Your task to perform on an android device: check google app version Image 0: 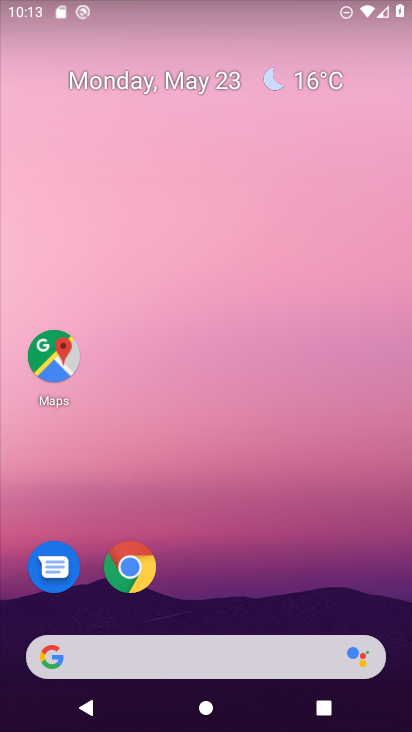
Step 0: drag from (153, 587) to (234, 152)
Your task to perform on an android device: check google app version Image 1: 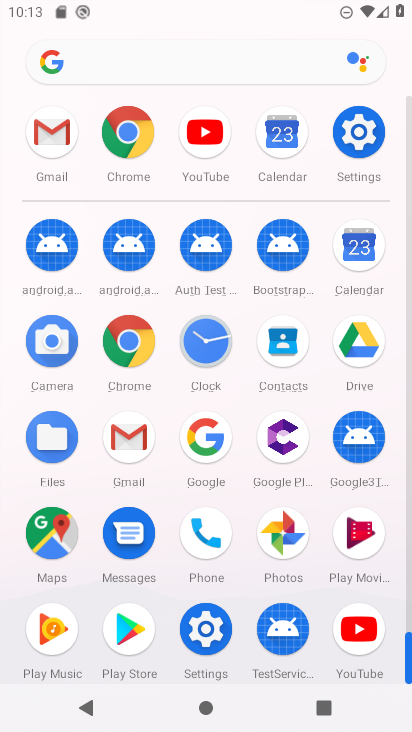
Step 1: drag from (249, 639) to (251, 213)
Your task to perform on an android device: check google app version Image 2: 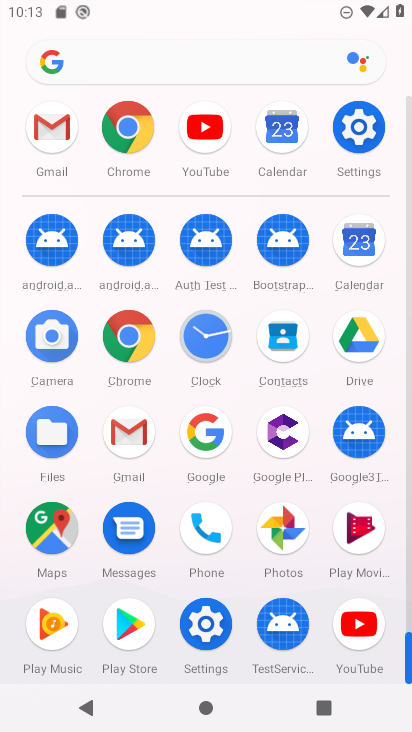
Step 2: drag from (234, 623) to (257, 168)
Your task to perform on an android device: check google app version Image 3: 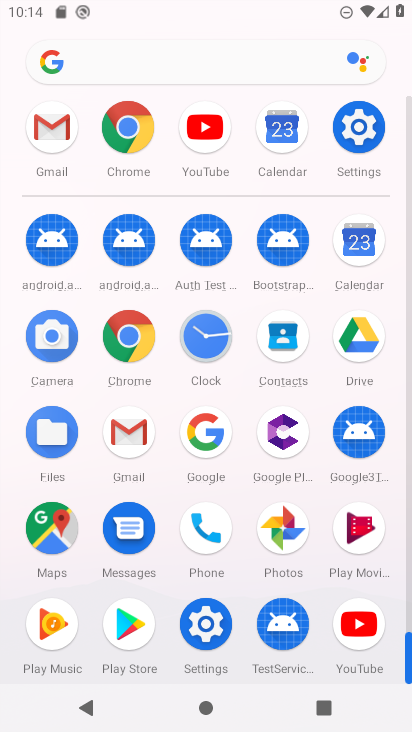
Step 3: click (194, 615)
Your task to perform on an android device: check google app version Image 4: 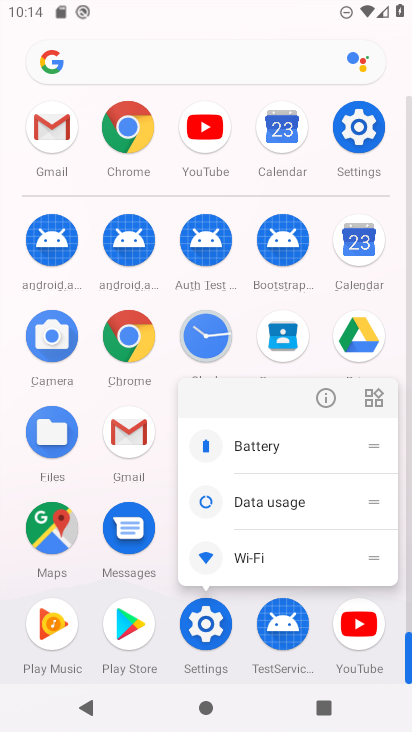
Step 4: click (324, 400)
Your task to perform on an android device: check google app version Image 5: 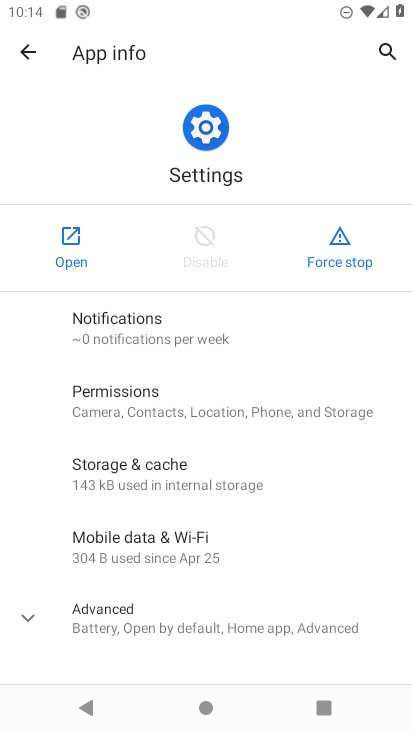
Step 5: click (72, 229)
Your task to perform on an android device: check google app version Image 6: 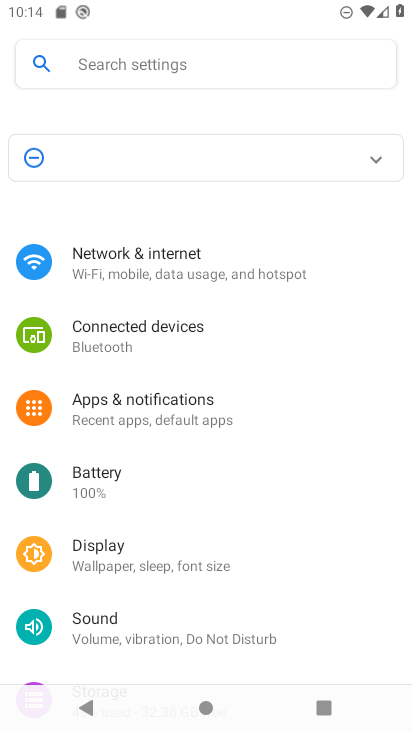
Step 6: drag from (187, 538) to (287, 73)
Your task to perform on an android device: check google app version Image 7: 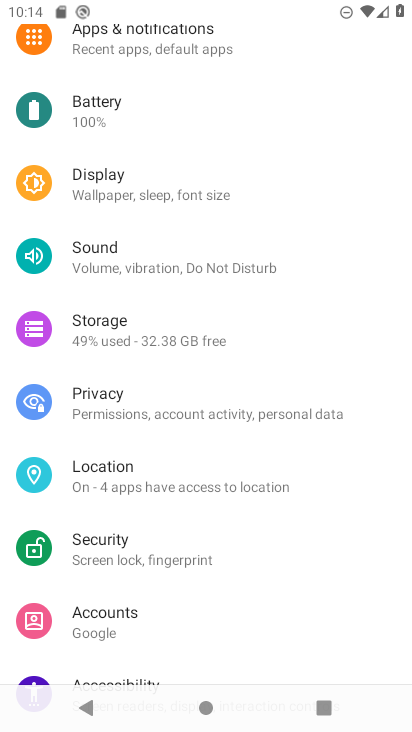
Step 7: drag from (158, 640) to (245, 182)
Your task to perform on an android device: check google app version Image 8: 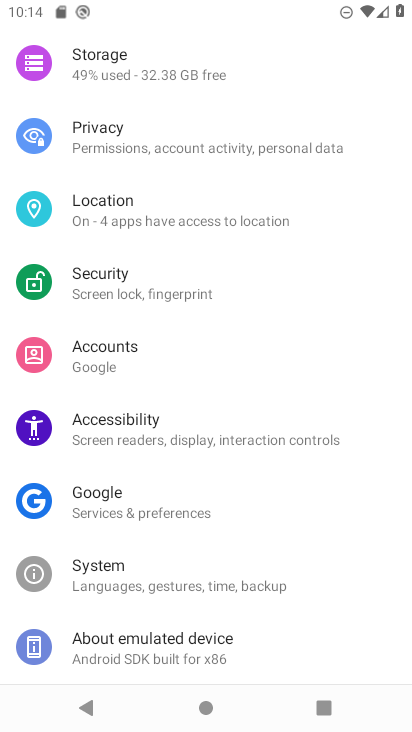
Step 8: drag from (200, 585) to (270, 269)
Your task to perform on an android device: check google app version Image 9: 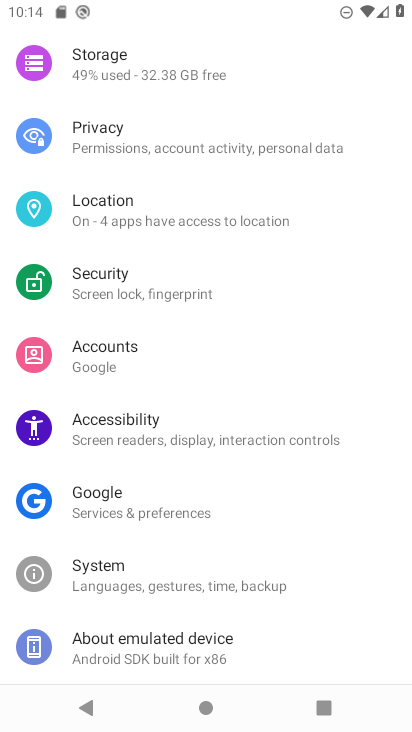
Step 9: click (180, 643)
Your task to perform on an android device: check google app version Image 10: 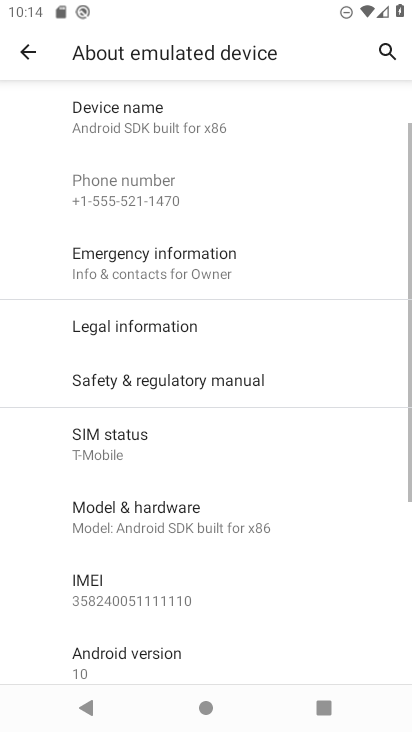
Step 10: drag from (193, 514) to (242, 297)
Your task to perform on an android device: check google app version Image 11: 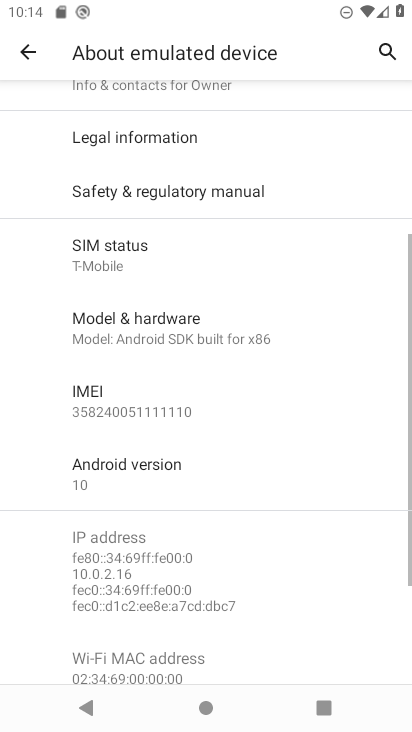
Step 11: drag from (245, 267) to (250, 691)
Your task to perform on an android device: check google app version Image 12: 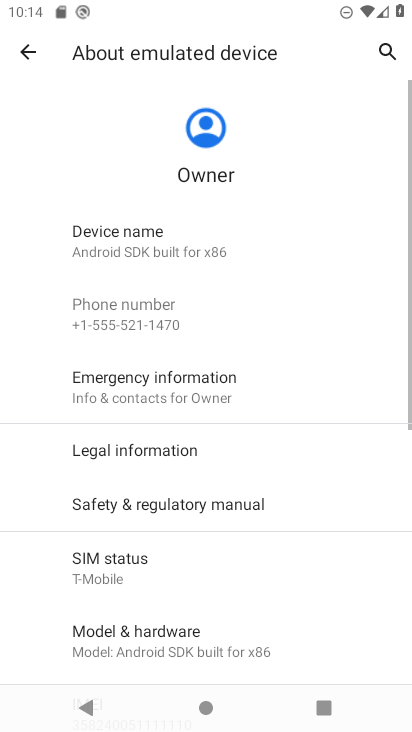
Step 12: drag from (241, 655) to (277, 266)
Your task to perform on an android device: check google app version Image 13: 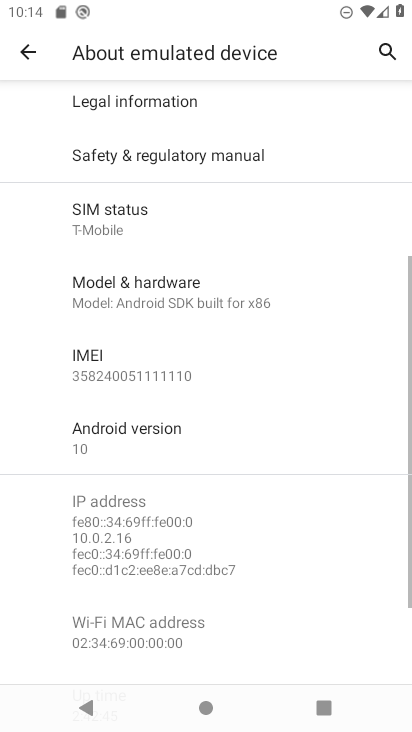
Step 13: click (183, 447)
Your task to perform on an android device: check google app version Image 14: 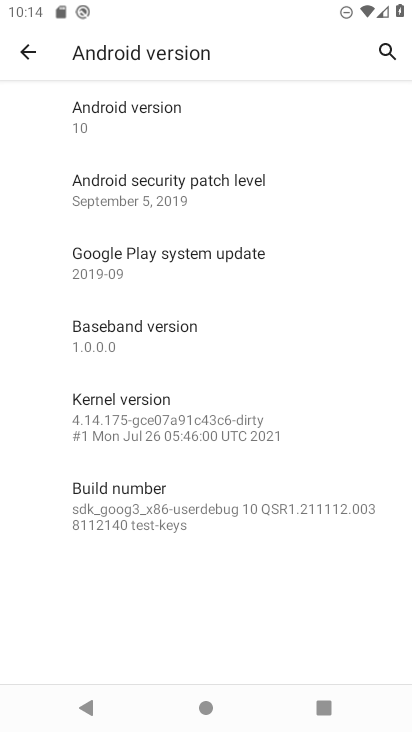
Step 14: click (85, 124)
Your task to perform on an android device: check google app version Image 15: 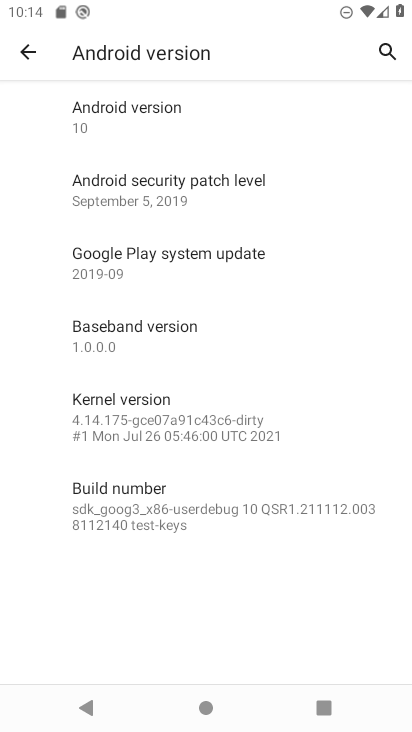
Step 15: task complete